Your task to perform on an android device: Open the web browser Image 0: 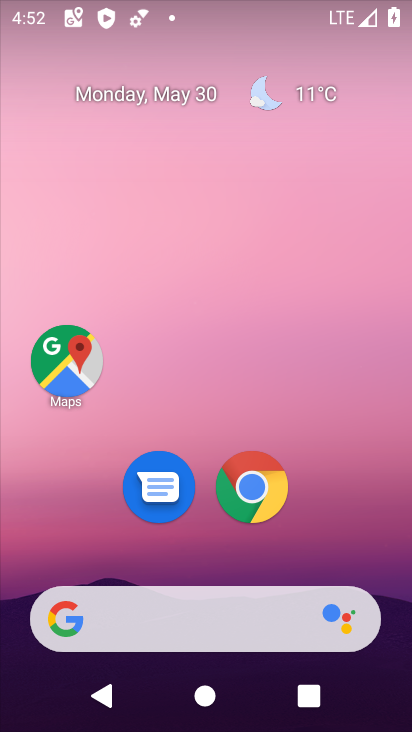
Step 0: click (259, 487)
Your task to perform on an android device: Open the web browser Image 1: 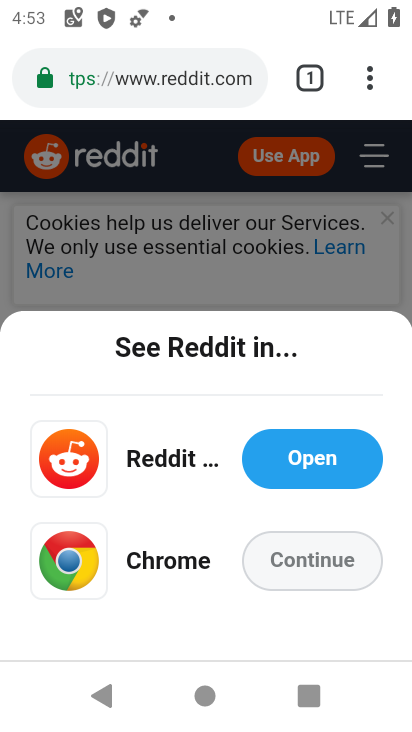
Step 1: task complete